Your task to perform on an android device: Go to settings Image 0: 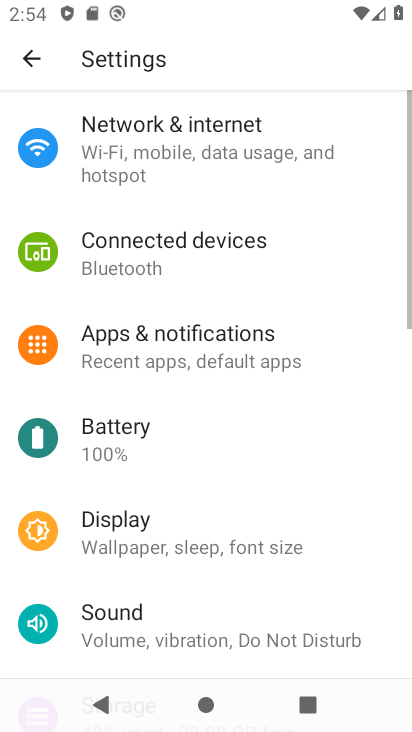
Step 0: press home button
Your task to perform on an android device: Go to settings Image 1: 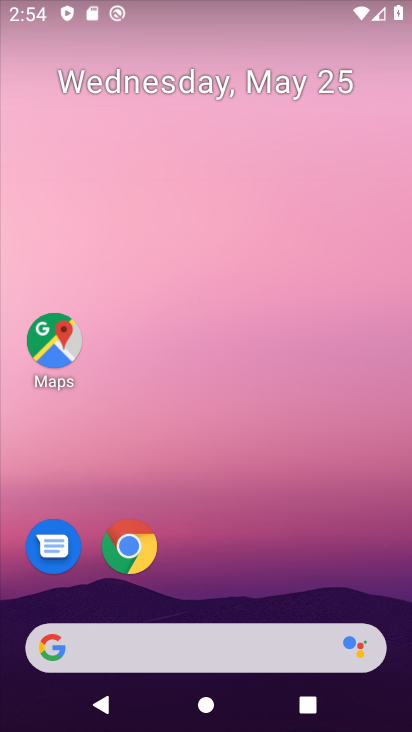
Step 1: drag from (230, 572) to (223, 138)
Your task to perform on an android device: Go to settings Image 2: 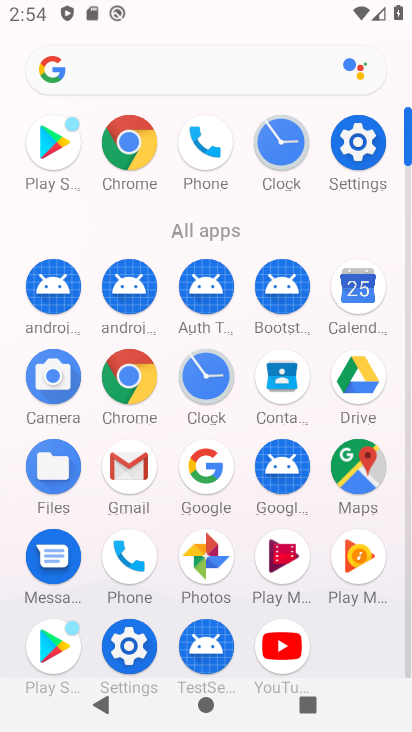
Step 2: click (352, 128)
Your task to perform on an android device: Go to settings Image 3: 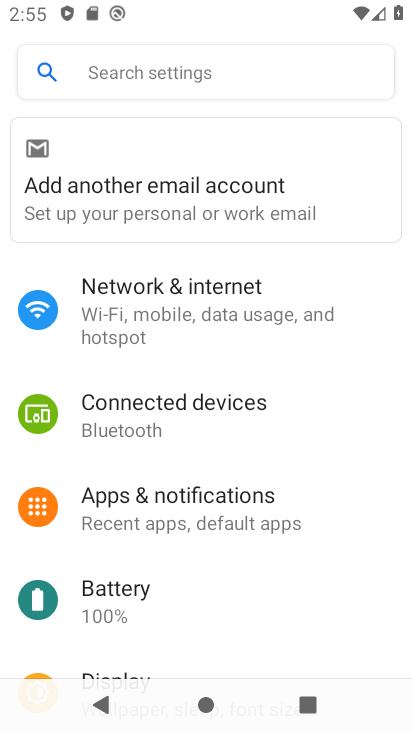
Step 3: task complete